Your task to perform on an android device: Open Wikipedia Image 0: 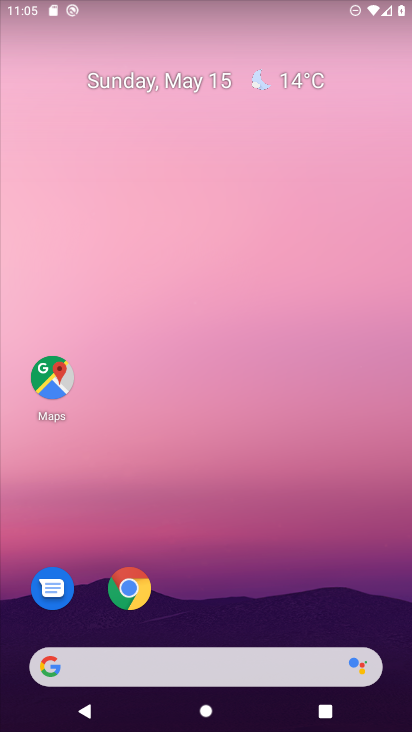
Step 0: click (131, 592)
Your task to perform on an android device: Open Wikipedia Image 1: 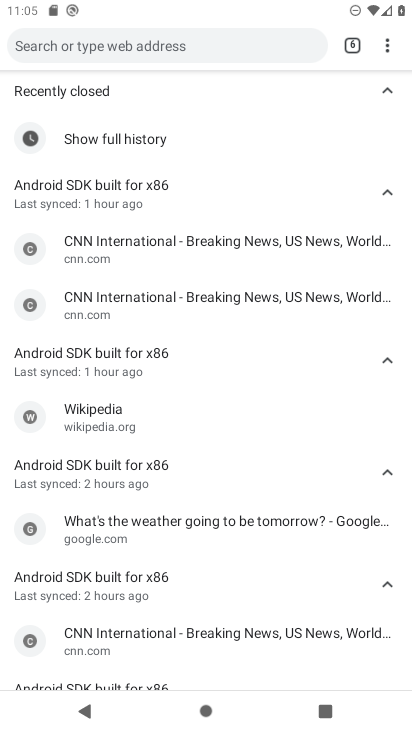
Step 1: click (179, 47)
Your task to perform on an android device: Open Wikipedia Image 2: 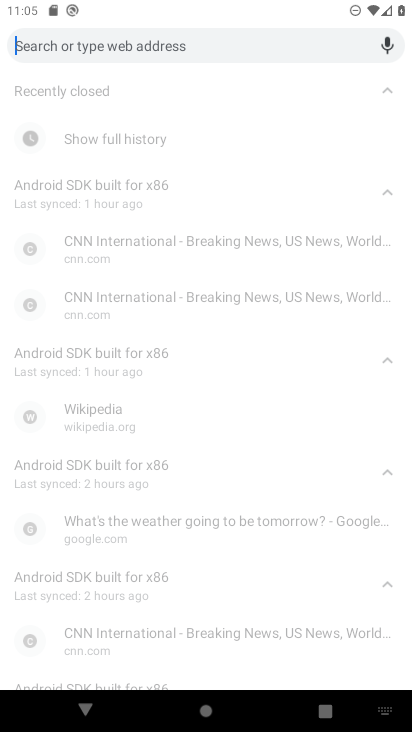
Step 2: type "wikipedia"
Your task to perform on an android device: Open Wikipedia Image 3: 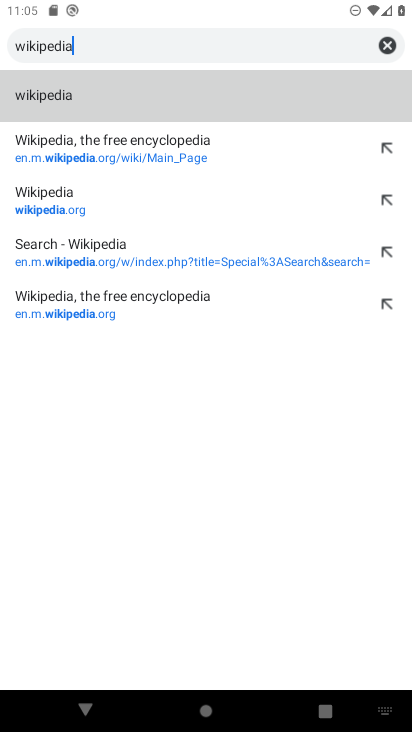
Step 3: click (63, 97)
Your task to perform on an android device: Open Wikipedia Image 4: 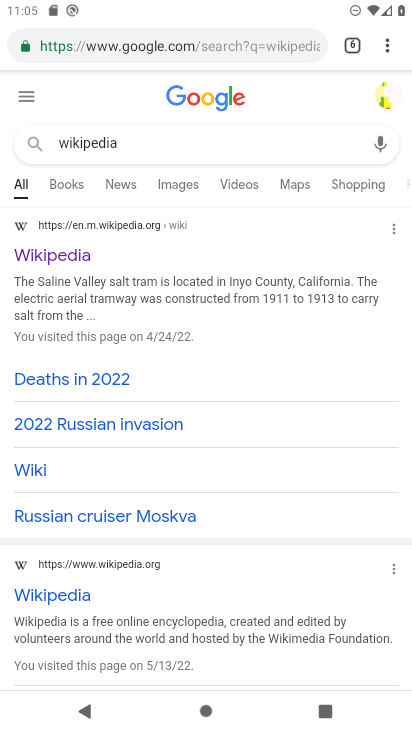
Step 4: task complete